Your task to perform on an android device: open app "Fetch Rewards" (install if not already installed) and enter user name: "Westwood@yahoo.com" and password: "qualifying" Image 0: 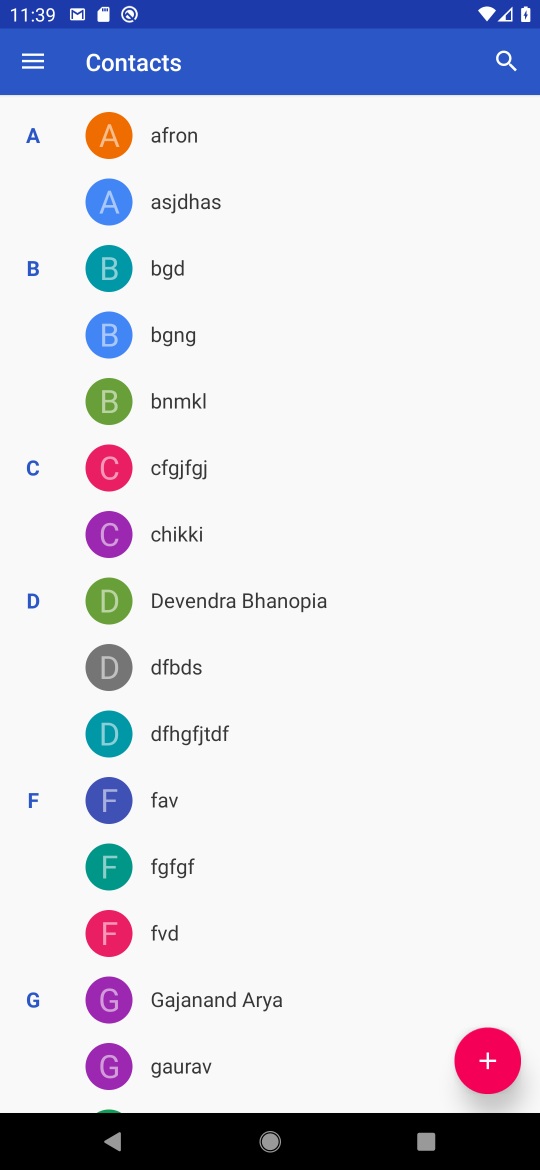
Step 0: press home button
Your task to perform on an android device: open app "Fetch Rewards" (install if not already installed) and enter user name: "Westwood@yahoo.com" and password: "qualifying" Image 1: 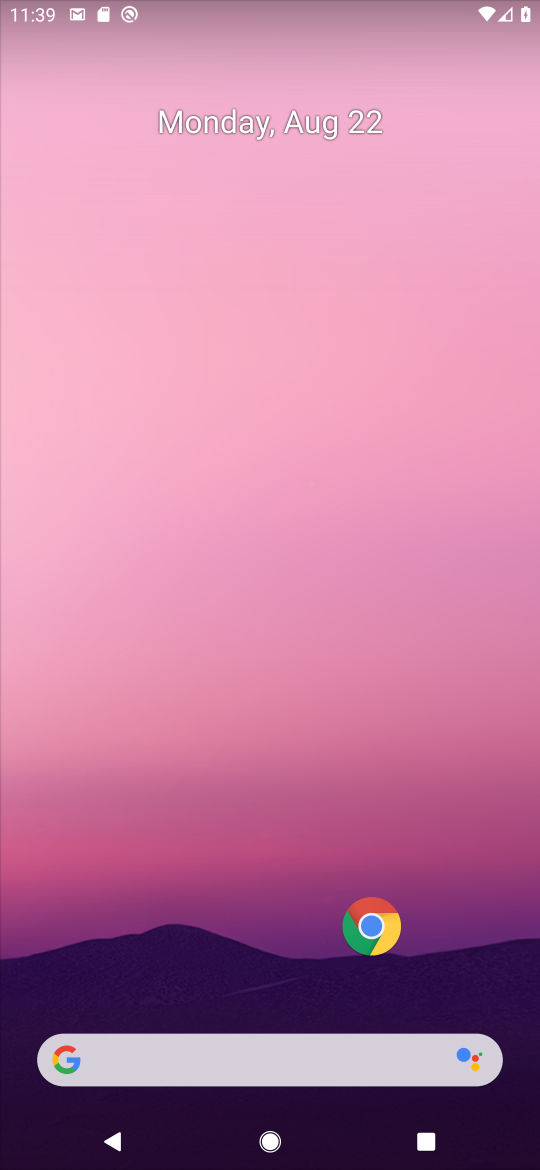
Step 1: drag from (292, 866) to (253, 53)
Your task to perform on an android device: open app "Fetch Rewards" (install if not already installed) and enter user name: "Westwood@yahoo.com" and password: "qualifying" Image 2: 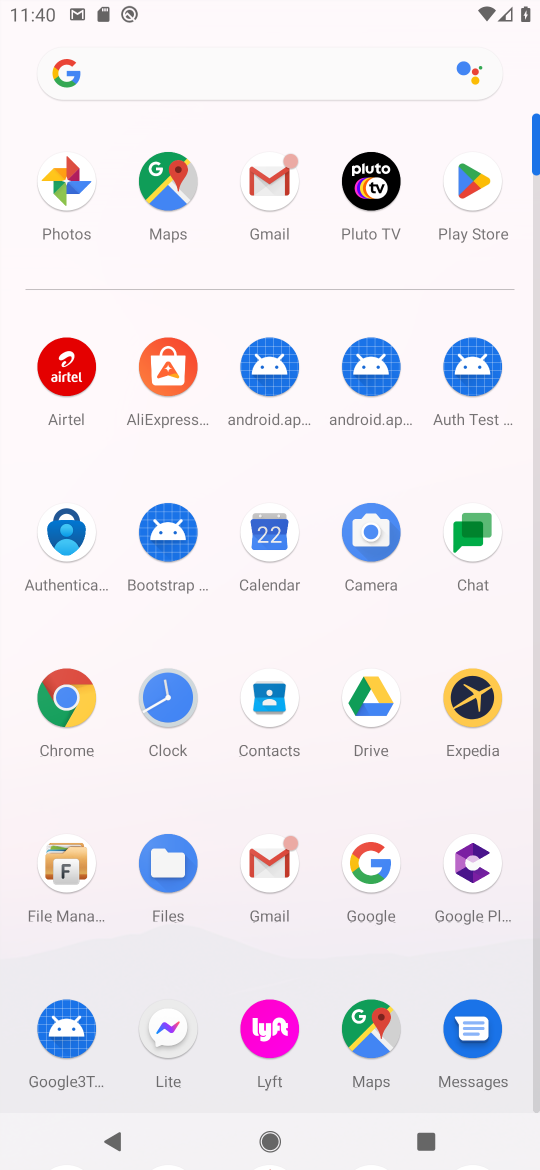
Step 2: click (448, 169)
Your task to perform on an android device: open app "Fetch Rewards" (install if not already installed) and enter user name: "Westwood@yahoo.com" and password: "qualifying" Image 3: 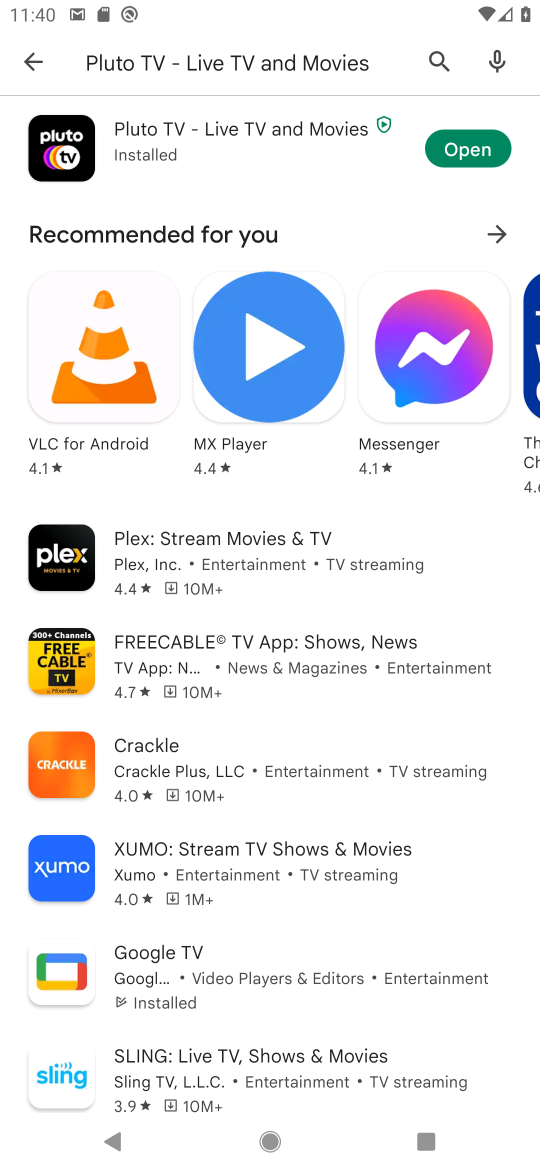
Step 3: press back button
Your task to perform on an android device: open app "Fetch Rewards" (install if not already installed) and enter user name: "Westwood@yahoo.com" and password: "qualifying" Image 4: 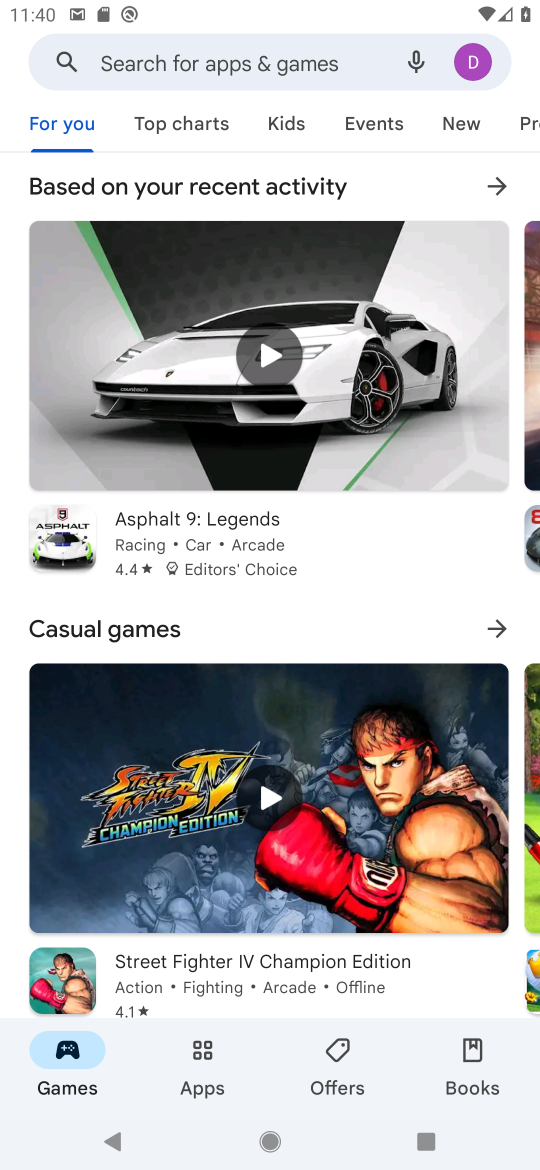
Step 4: click (325, 50)
Your task to perform on an android device: open app "Fetch Rewards" (install if not already installed) and enter user name: "Westwood@yahoo.com" and password: "qualifying" Image 5: 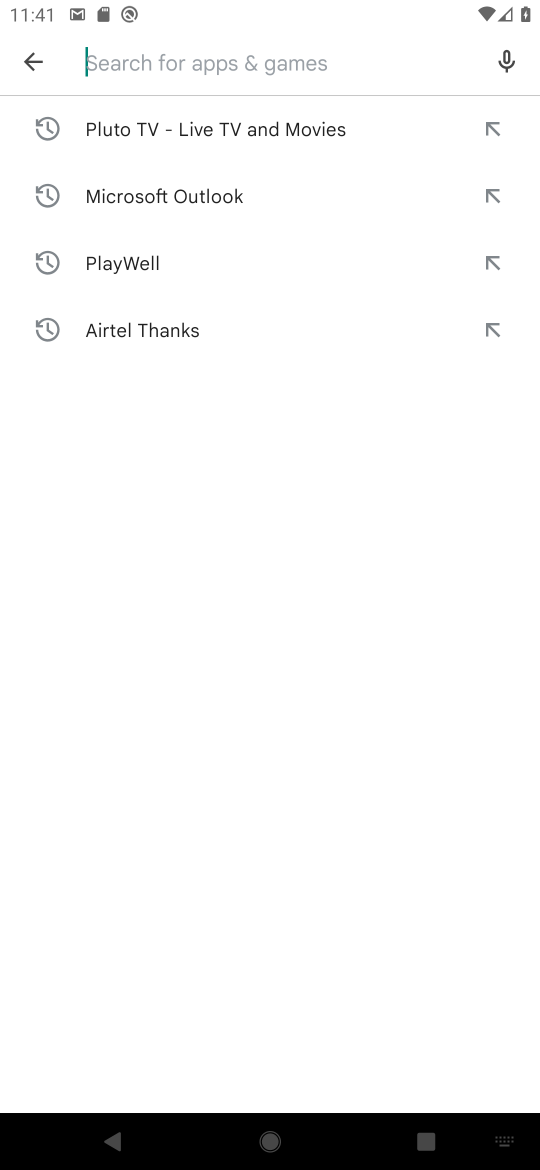
Step 5: type "Fetch Rewards"
Your task to perform on an android device: open app "Fetch Rewards" (install if not already installed) and enter user name: "Westwood@yahoo.com" and password: "qualifying" Image 6: 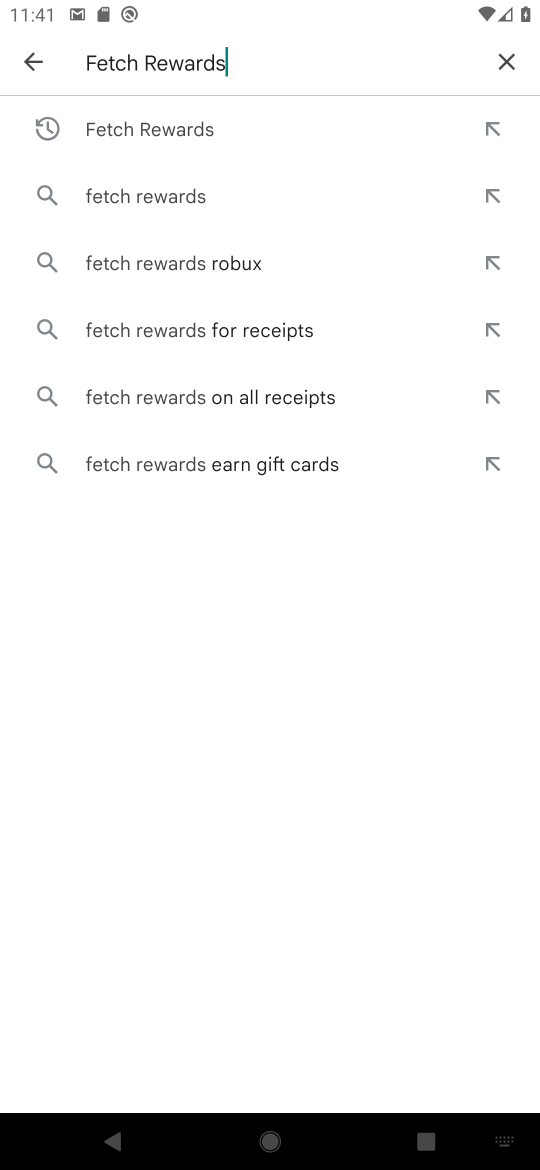
Step 6: press enter
Your task to perform on an android device: open app "Fetch Rewards" (install if not already installed) and enter user name: "Westwood@yahoo.com" and password: "qualifying" Image 7: 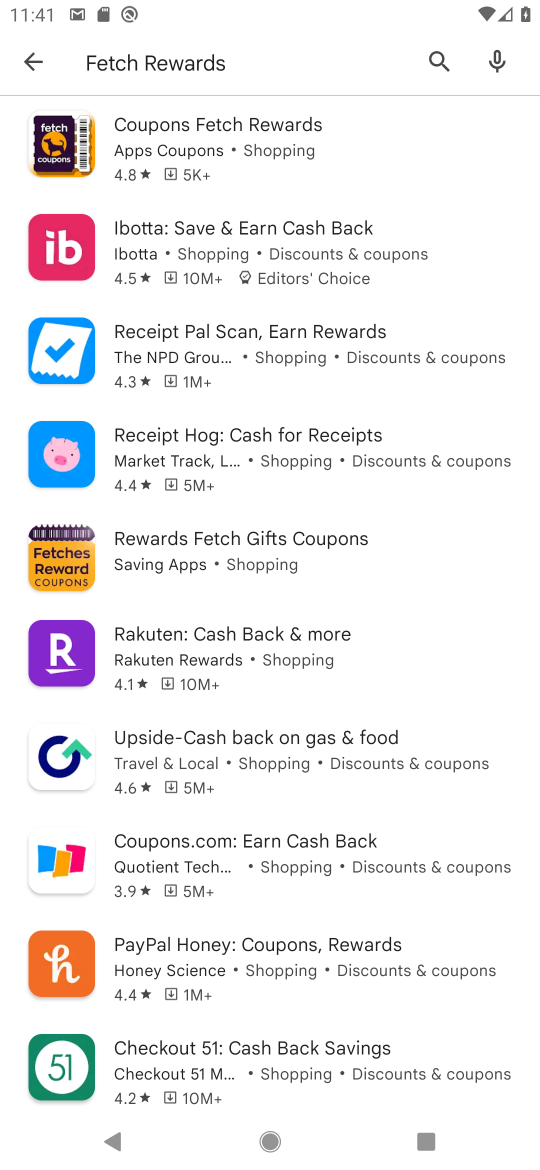
Step 7: task complete